Your task to perform on an android device: Go to sound settings Image 0: 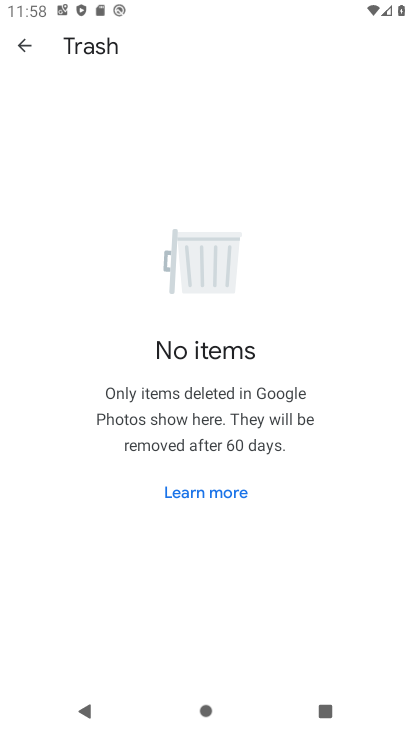
Step 0: press back button
Your task to perform on an android device: Go to sound settings Image 1: 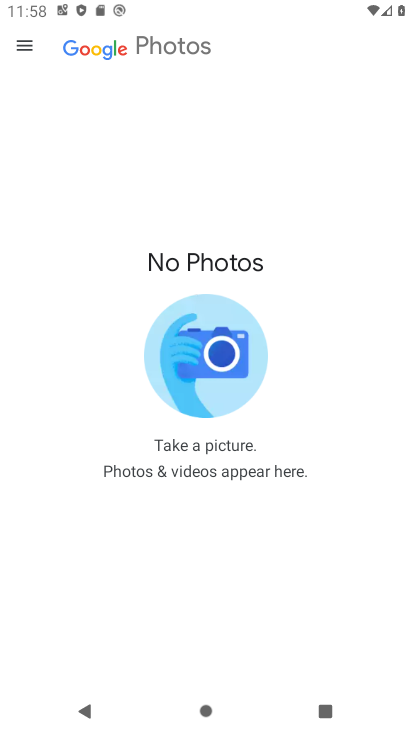
Step 1: press home button
Your task to perform on an android device: Go to sound settings Image 2: 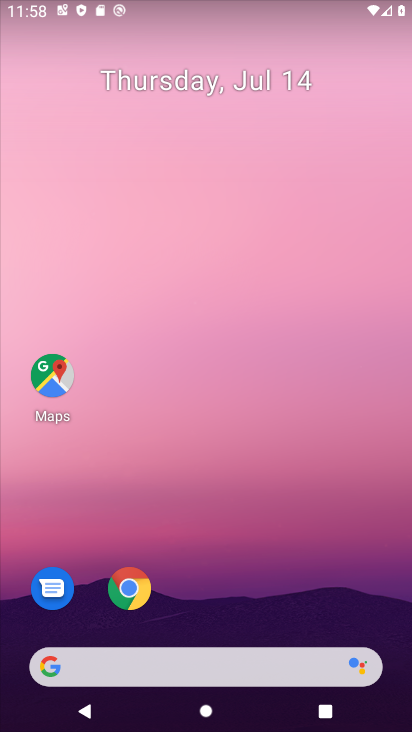
Step 2: drag from (239, 563) to (324, 21)
Your task to perform on an android device: Go to sound settings Image 3: 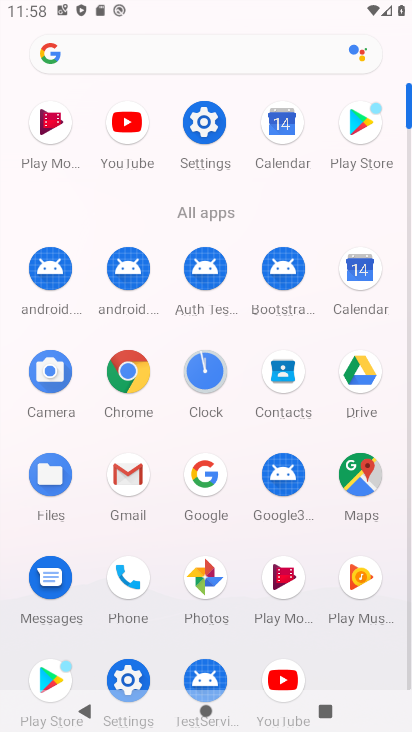
Step 3: click (209, 117)
Your task to perform on an android device: Go to sound settings Image 4: 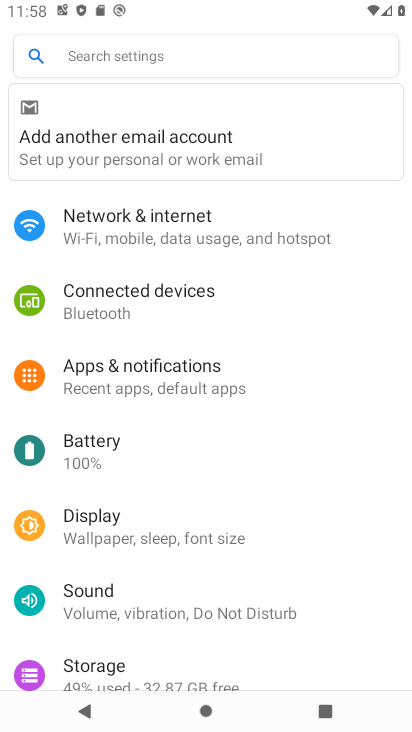
Step 4: click (131, 603)
Your task to perform on an android device: Go to sound settings Image 5: 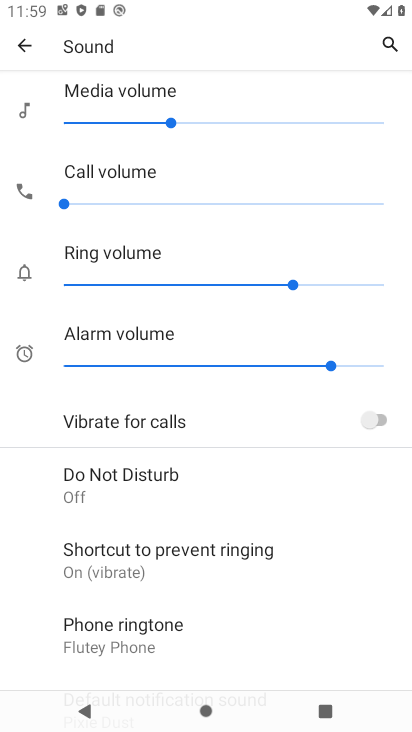
Step 5: task complete